Your task to perform on an android device: What's the weather going to be tomorrow? Image 0: 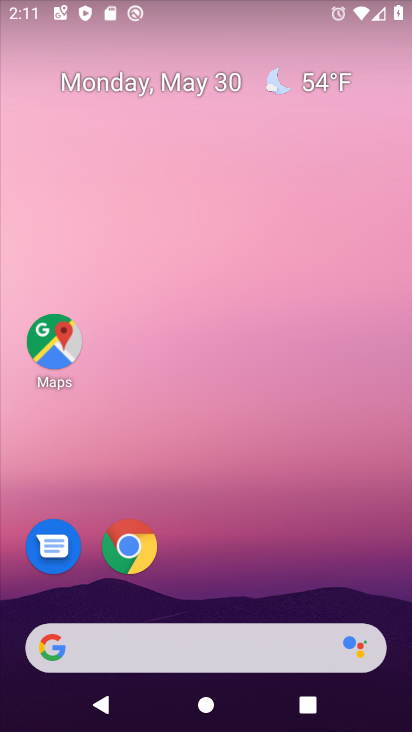
Step 0: press home button
Your task to perform on an android device: What's the weather going to be tomorrow? Image 1: 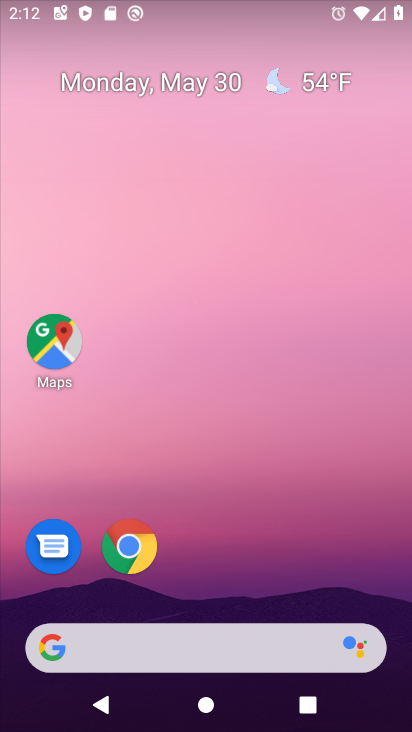
Step 1: click (338, 82)
Your task to perform on an android device: What's the weather going to be tomorrow? Image 2: 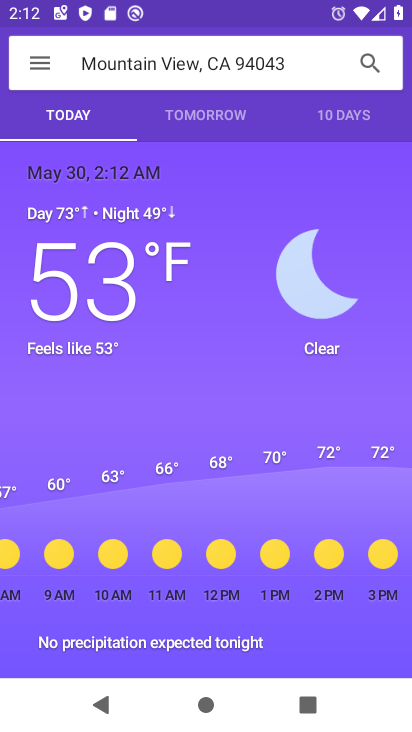
Step 2: click (195, 128)
Your task to perform on an android device: What's the weather going to be tomorrow? Image 3: 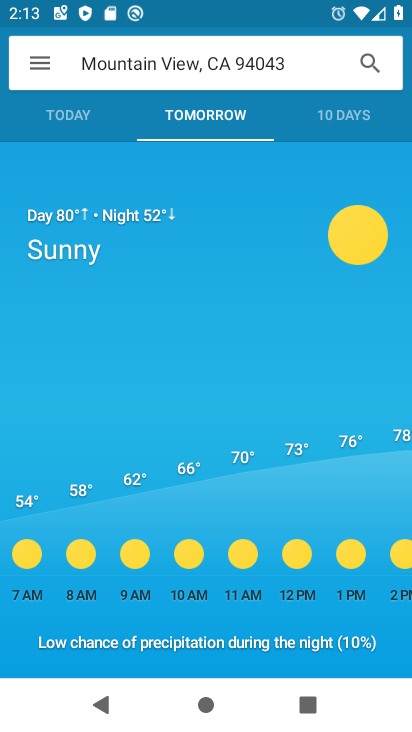
Step 3: task complete